Your task to perform on an android device: turn off notifications settings in the gmail app Image 0: 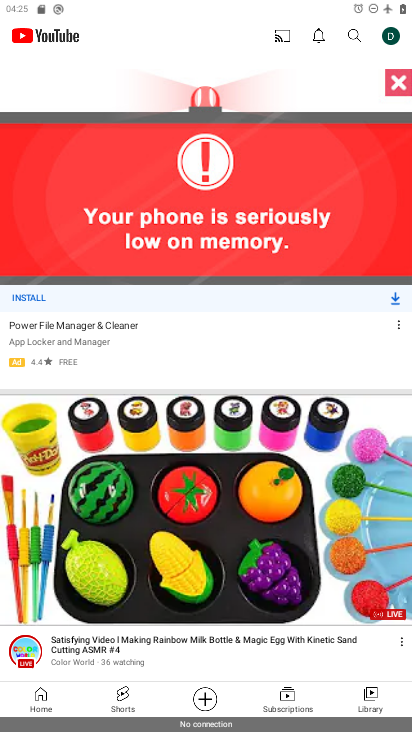
Step 0: drag from (254, 564) to (296, 274)
Your task to perform on an android device: turn off notifications settings in the gmail app Image 1: 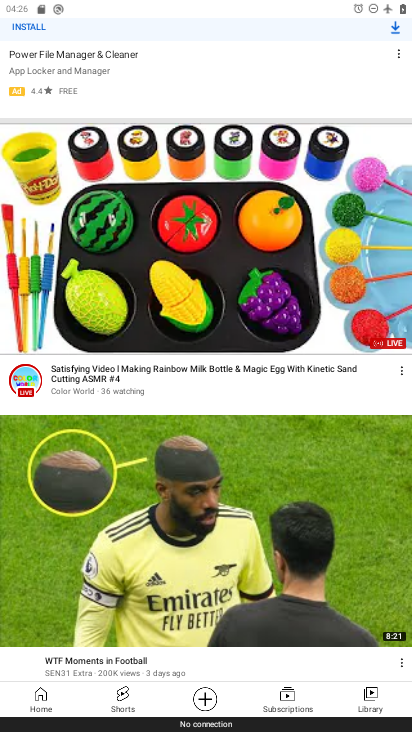
Step 1: press home button
Your task to perform on an android device: turn off notifications settings in the gmail app Image 2: 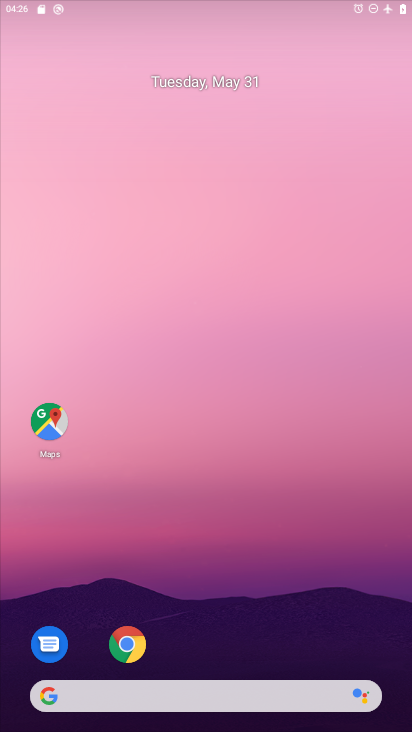
Step 2: drag from (290, 558) to (243, 60)
Your task to perform on an android device: turn off notifications settings in the gmail app Image 3: 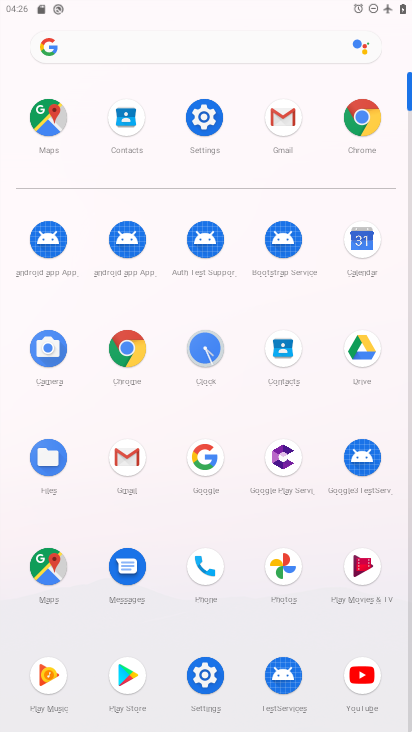
Step 3: click (194, 111)
Your task to perform on an android device: turn off notifications settings in the gmail app Image 4: 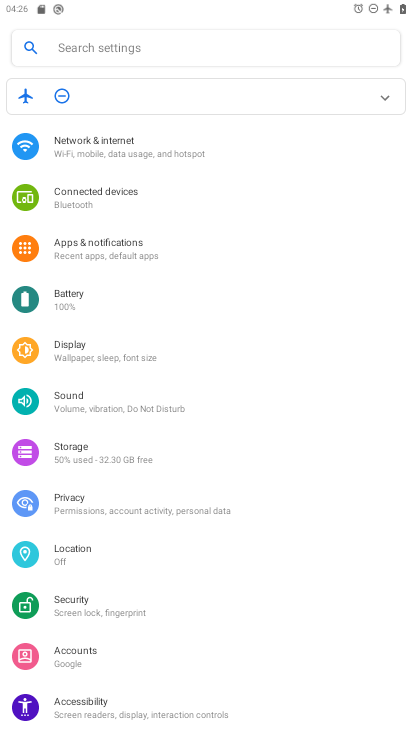
Step 4: drag from (203, 582) to (205, 197)
Your task to perform on an android device: turn off notifications settings in the gmail app Image 5: 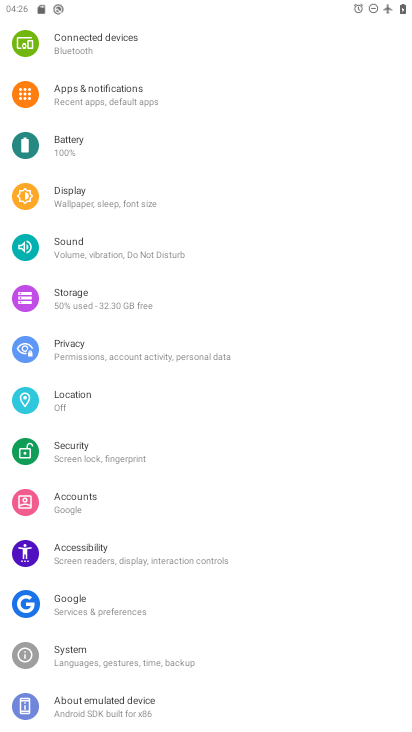
Step 5: drag from (122, 123) to (156, 517)
Your task to perform on an android device: turn off notifications settings in the gmail app Image 6: 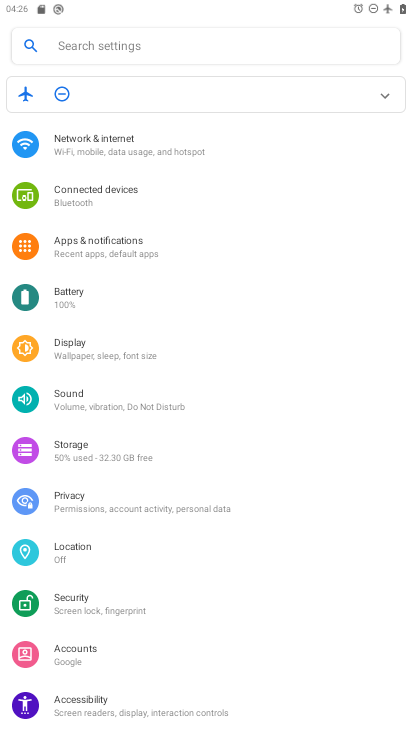
Step 6: click (125, 239)
Your task to perform on an android device: turn off notifications settings in the gmail app Image 7: 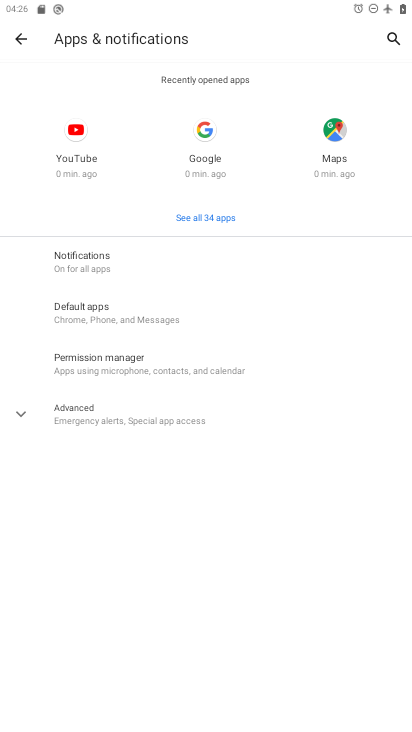
Step 7: click (136, 249)
Your task to perform on an android device: turn off notifications settings in the gmail app Image 8: 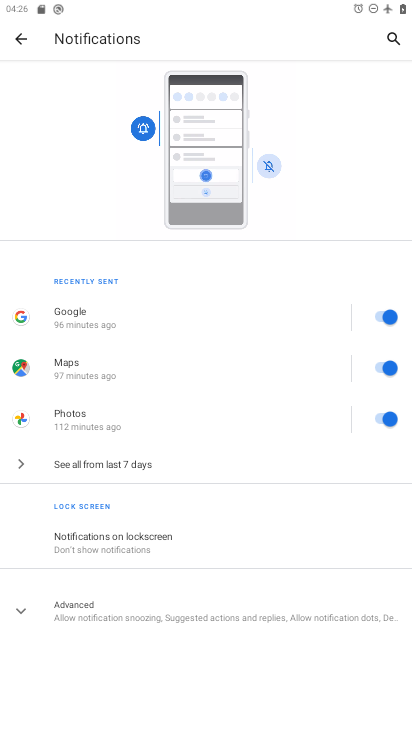
Step 8: drag from (31, 37) to (284, 391)
Your task to perform on an android device: turn off notifications settings in the gmail app Image 9: 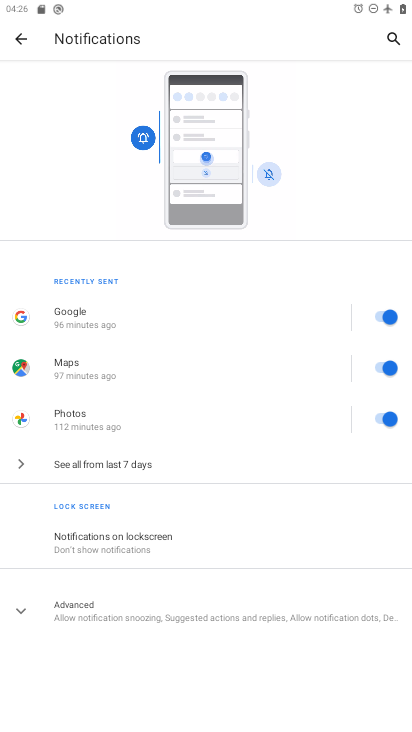
Step 9: click (26, 16)
Your task to perform on an android device: turn off notifications settings in the gmail app Image 10: 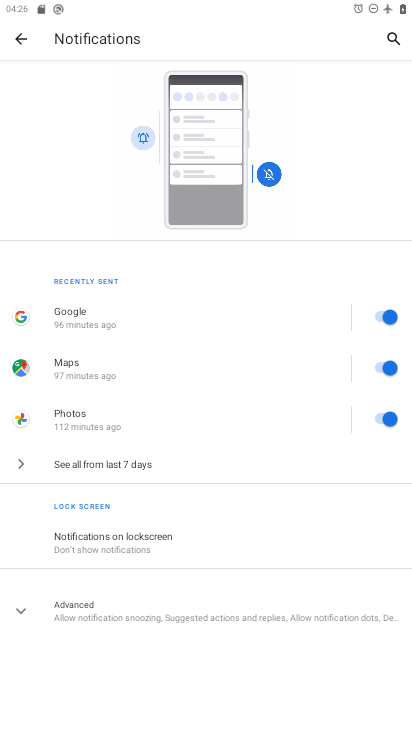
Step 10: click (24, 36)
Your task to perform on an android device: turn off notifications settings in the gmail app Image 11: 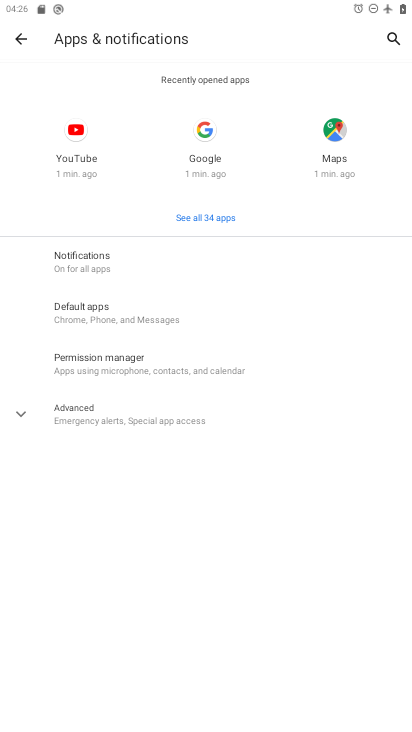
Step 11: click (215, 215)
Your task to perform on an android device: turn off notifications settings in the gmail app Image 12: 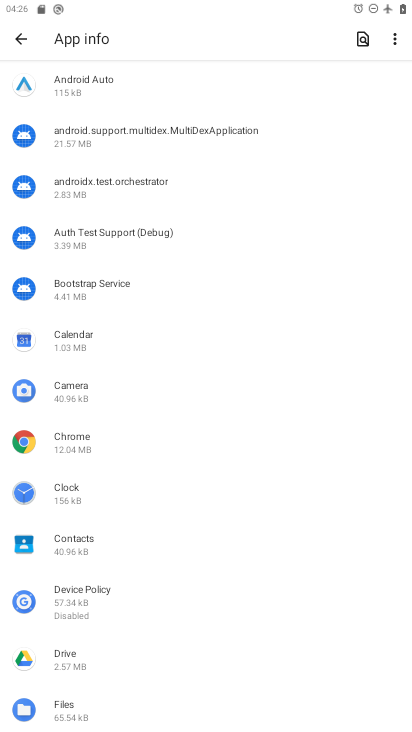
Step 12: drag from (140, 601) to (222, 98)
Your task to perform on an android device: turn off notifications settings in the gmail app Image 13: 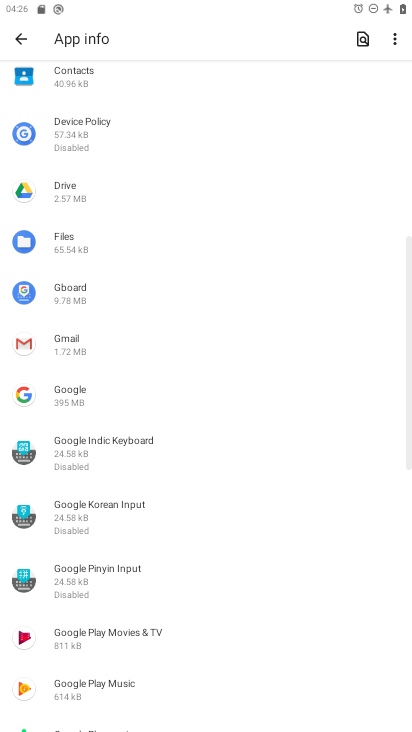
Step 13: click (81, 344)
Your task to perform on an android device: turn off notifications settings in the gmail app Image 14: 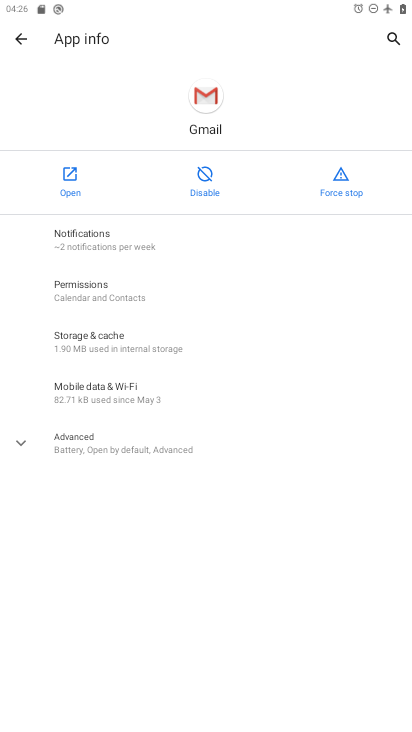
Step 14: click (128, 244)
Your task to perform on an android device: turn off notifications settings in the gmail app Image 15: 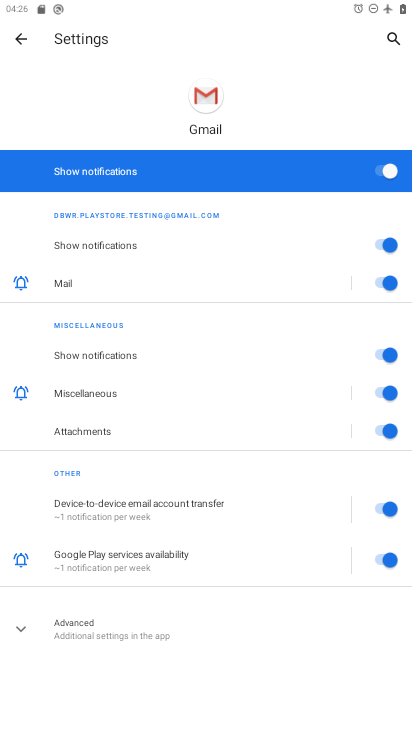
Step 15: click (386, 159)
Your task to perform on an android device: turn off notifications settings in the gmail app Image 16: 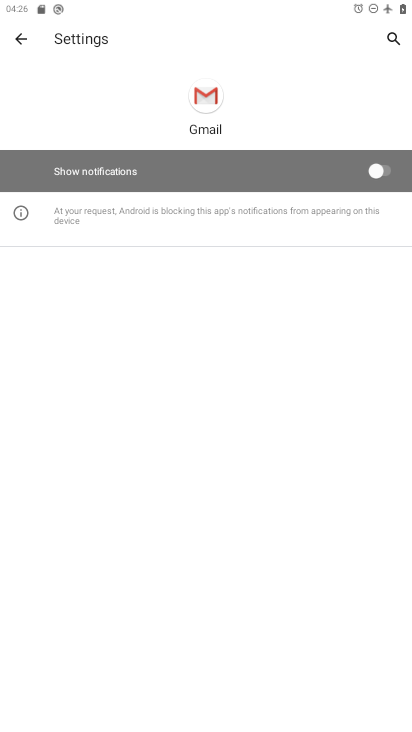
Step 16: task complete